Your task to perform on an android device: turn off smart reply in the gmail app Image 0: 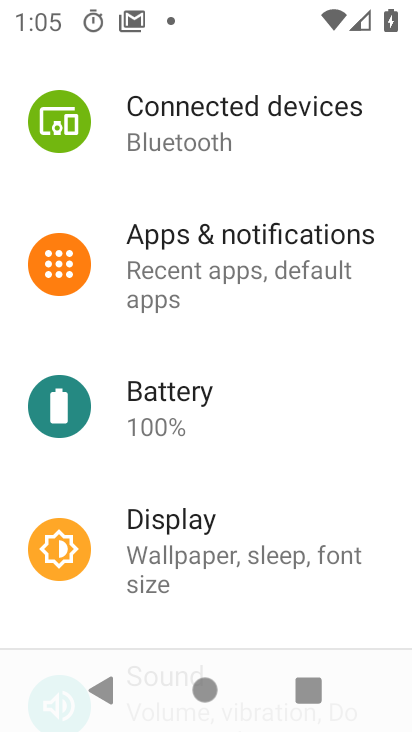
Step 0: press home button
Your task to perform on an android device: turn off smart reply in the gmail app Image 1: 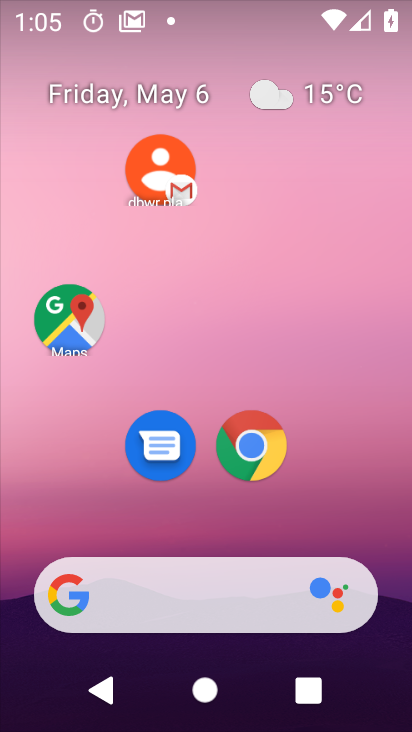
Step 1: drag from (375, 695) to (226, 106)
Your task to perform on an android device: turn off smart reply in the gmail app Image 2: 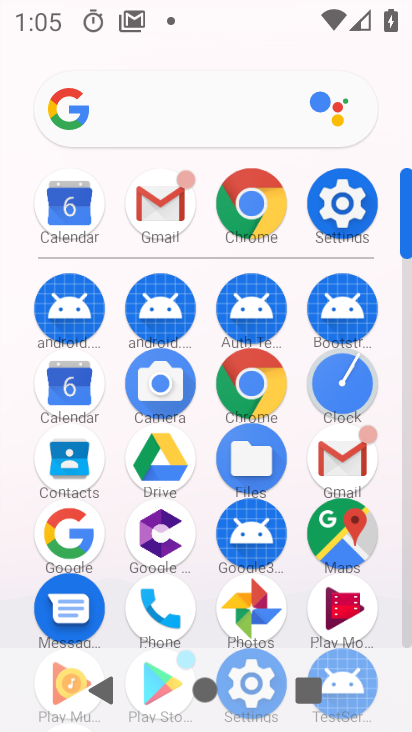
Step 2: click (347, 449)
Your task to perform on an android device: turn off smart reply in the gmail app Image 3: 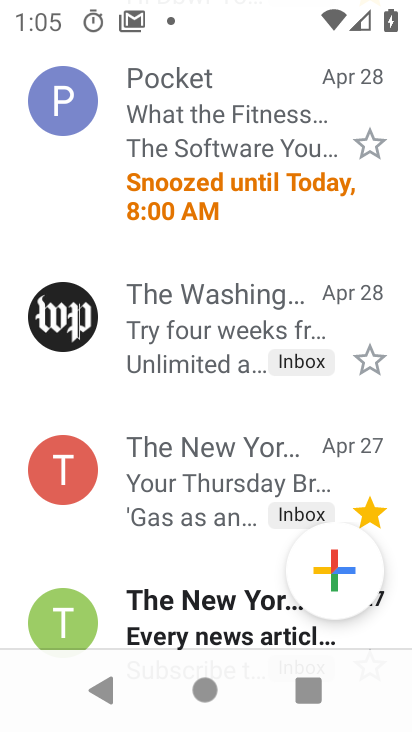
Step 3: drag from (191, 233) to (226, 421)
Your task to perform on an android device: turn off smart reply in the gmail app Image 4: 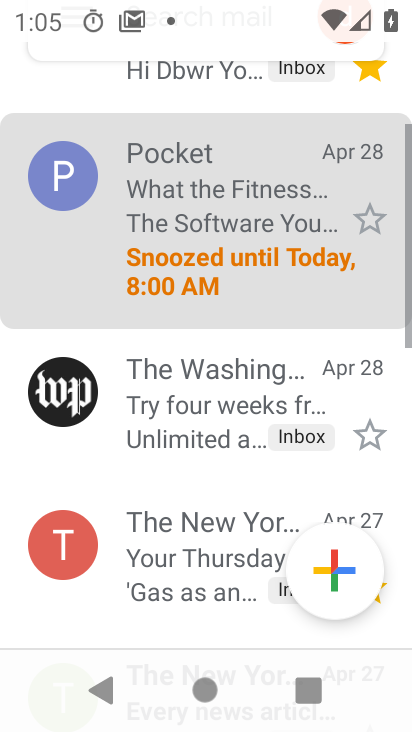
Step 4: drag from (226, 221) to (218, 487)
Your task to perform on an android device: turn off smart reply in the gmail app Image 5: 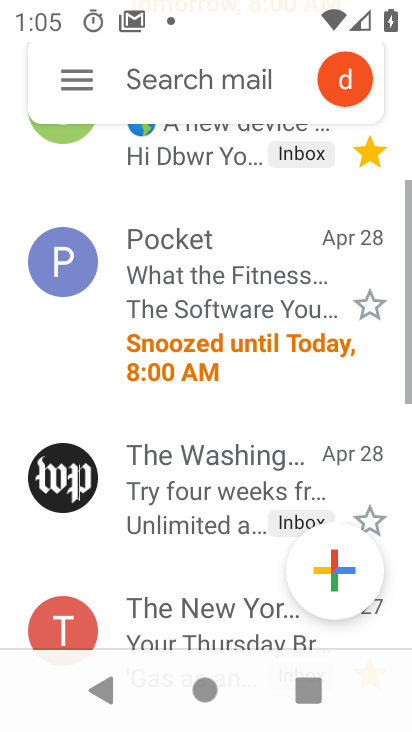
Step 5: drag from (173, 193) to (172, 489)
Your task to perform on an android device: turn off smart reply in the gmail app Image 6: 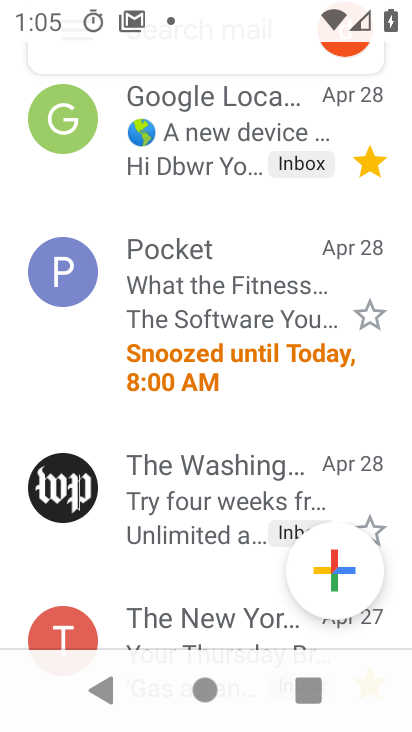
Step 6: drag from (148, 121) to (249, 496)
Your task to perform on an android device: turn off smart reply in the gmail app Image 7: 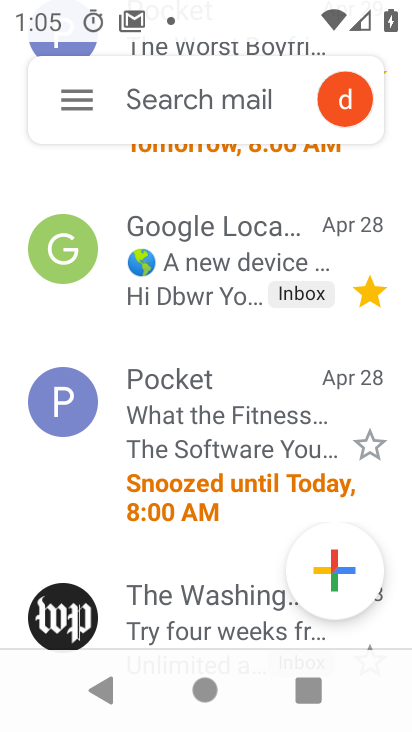
Step 7: click (74, 99)
Your task to perform on an android device: turn off smart reply in the gmail app Image 8: 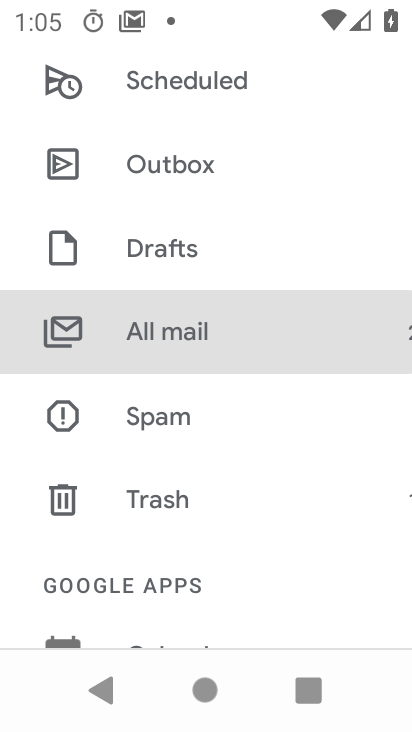
Step 8: click (212, 165)
Your task to perform on an android device: turn off smart reply in the gmail app Image 9: 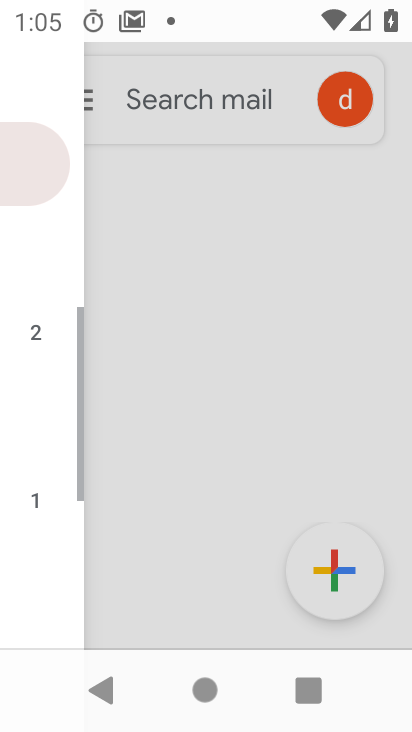
Step 9: drag from (212, 550) to (172, 180)
Your task to perform on an android device: turn off smart reply in the gmail app Image 10: 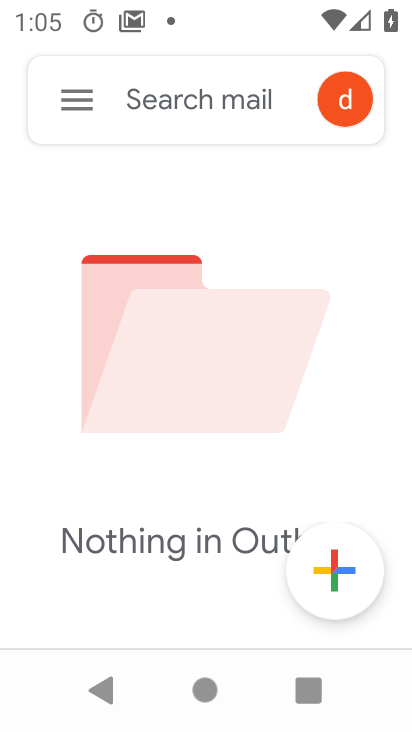
Step 10: click (62, 81)
Your task to perform on an android device: turn off smart reply in the gmail app Image 11: 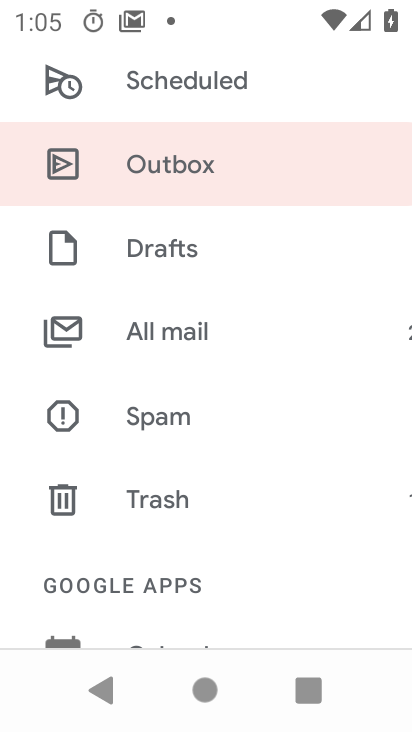
Step 11: drag from (159, 489) to (158, 33)
Your task to perform on an android device: turn off smart reply in the gmail app Image 12: 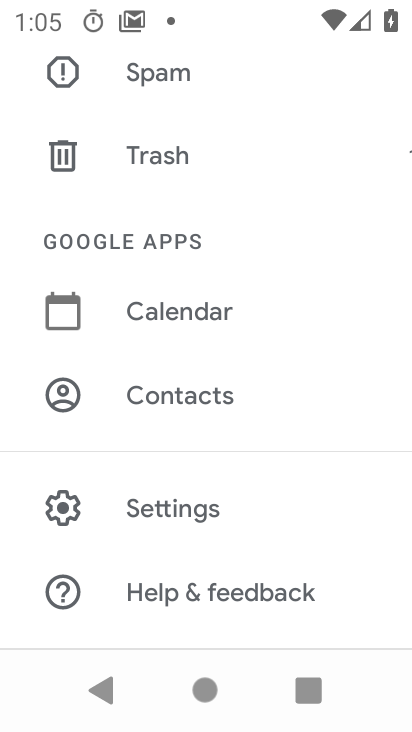
Step 12: click (157, 504)
Your task to perform on an android device: turn off smart reply in the gmail app Image 13: 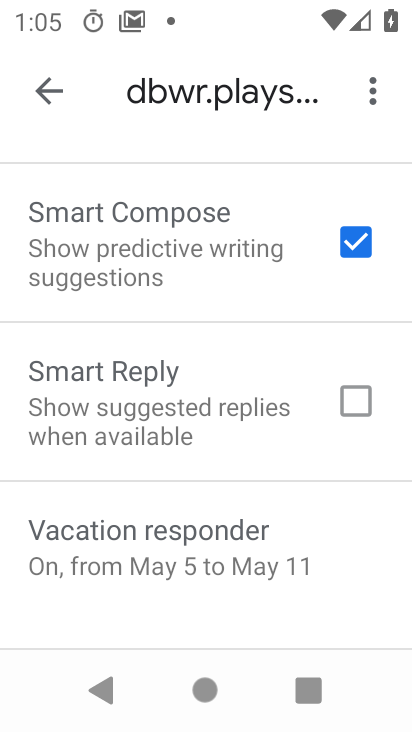
Step 13: click (362, 404)
Your task to perform on an android device: turn off smart reply in the gmail app Image 14: 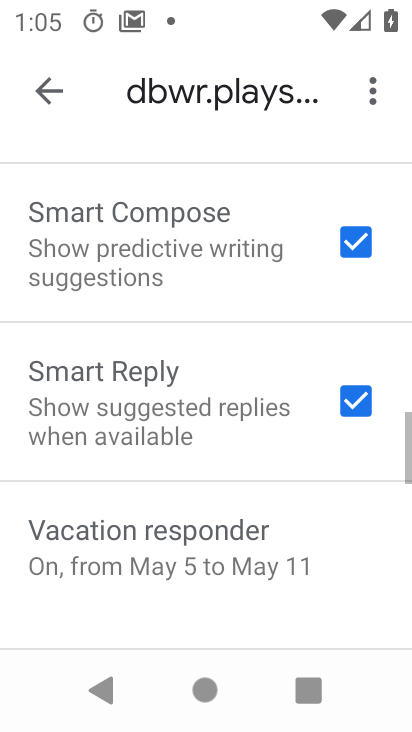
Step 14: click (362, 404)
Your task to perform on an android device: turn off smart reply in the gmail app Image 15: 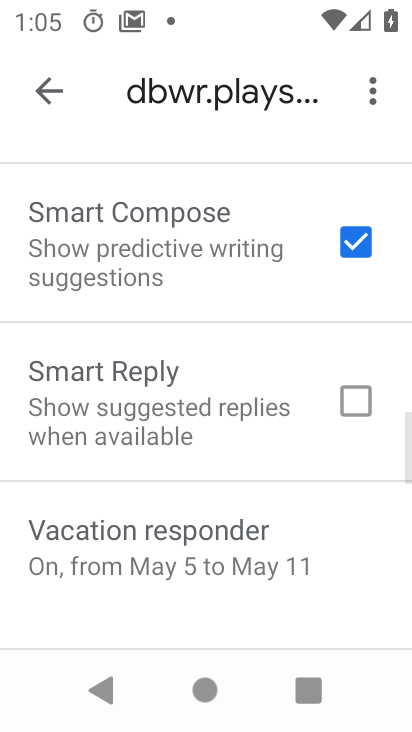
Step 15: task complete